Your task to perform on an android device: open device folders in google photos Image 0: 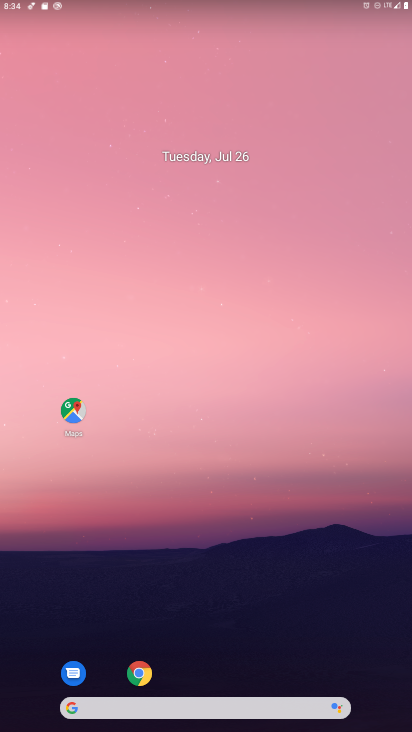
Step 0: drag from (191, 89) to (166, 37)
Your task to perform on an android device: open device folders in google photos Image 1: 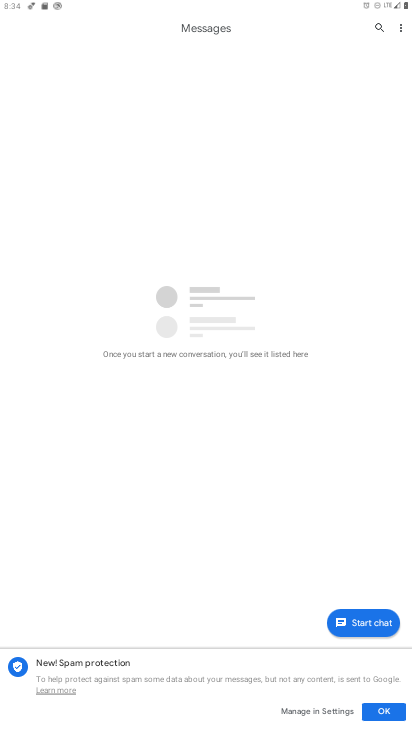
Step 1: press home button
Your task to perform on an android device: open device folders in google photos Image 2: 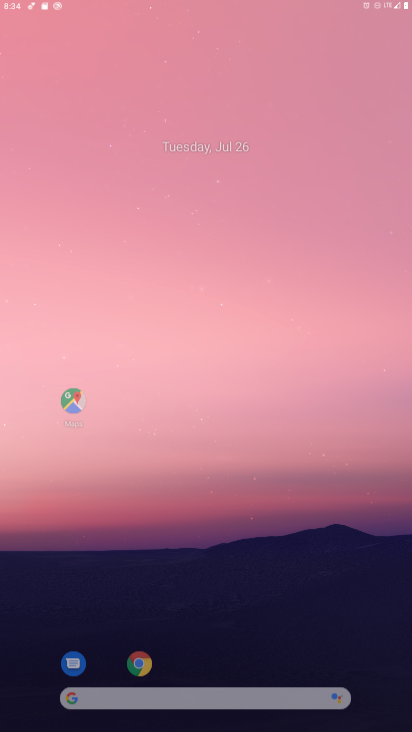
Step 2: drag from (333, 654) to (135, 0)
Your task to perform on an android device: open device folders in google photos Image 3: 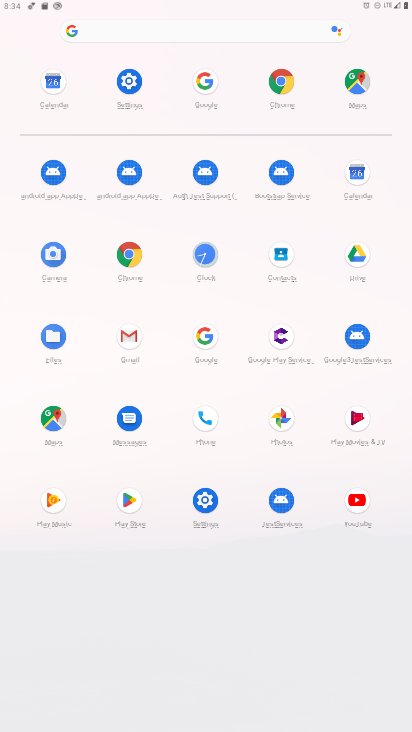
Step 3: click (272, 425)
Your task to perform on an android device: open device folders in google photos Image 4: 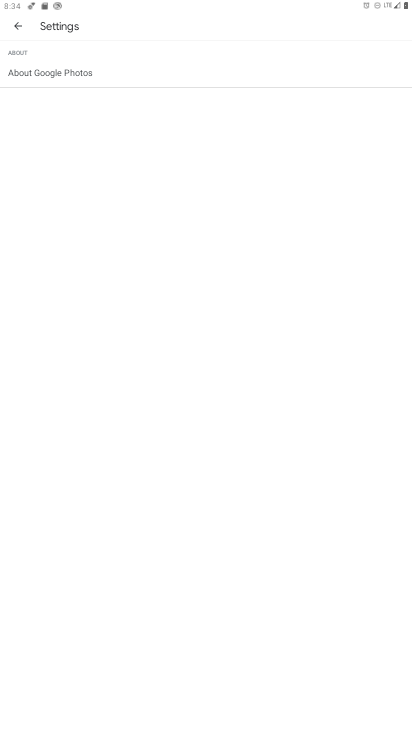
Step 4: press back button
Your task to perform on an android device: open device folders in google photos Image 5: 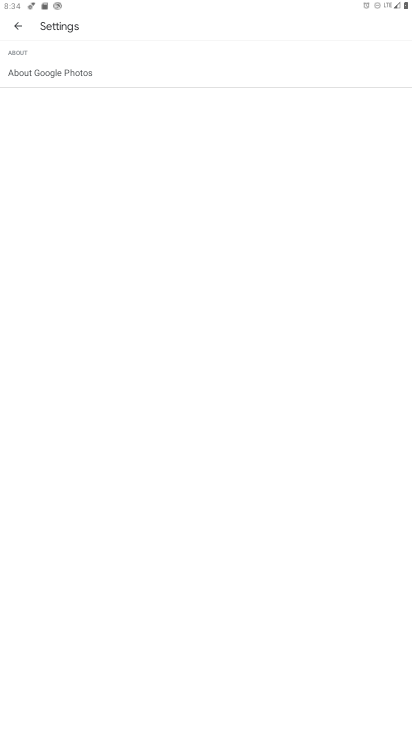
Step 5: press back button
Your task to perform on an android device: open device folders in google photos Image 6: 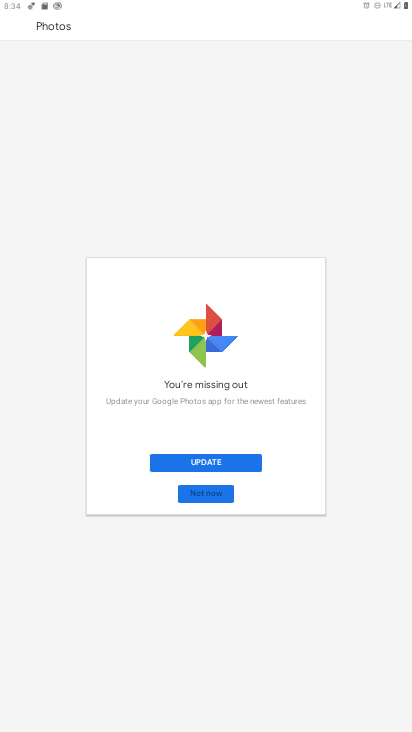
Step 6: press back button
Your task to perform on an android device: open device folders in google photos Image 7: 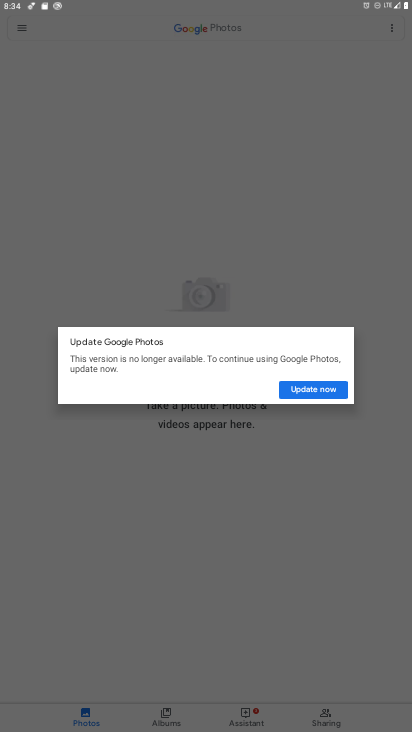
Step 7: click (322, 387)
Your task to perform on an android device: open device folders in google photos Image 8: 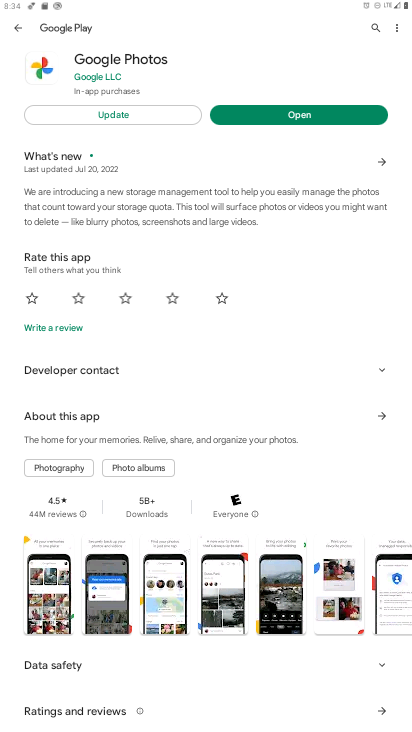
Step 8: click (108, 113)
Your task to perform on an android device: open device folders in google photos Image 9: 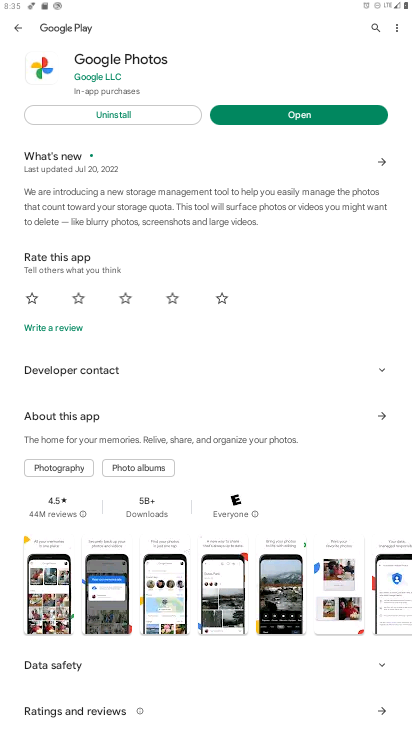
Step 9: task complete